Your task to perform on an android device: Empty the shopping cart on bestbuy. Search for "logitech g pro" on bestbuy, select the first entry, and add it to the cart. Image 0: 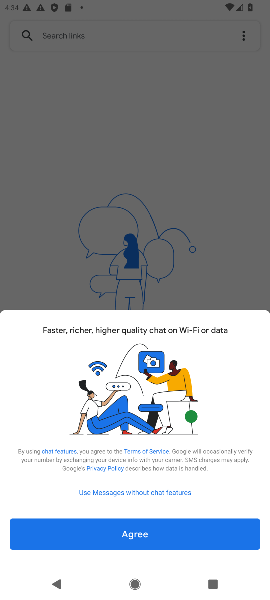
Step 0: press home button
Your task to perform on an android device: Empty the shopping cart on bestbuy. Search for "logitech g pro" on bestbuy, select the first entry, and add it to the cart. Image 1: 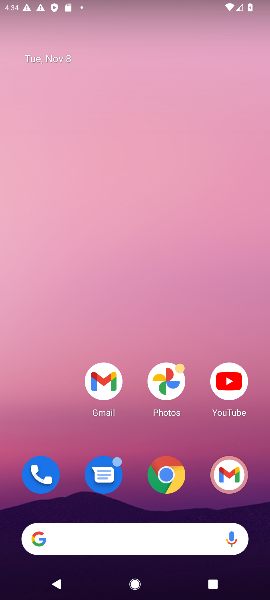
Step 1: drag from (148, 514) to (143, 174)
Your task to perform on an android device: Empty the shopping cart on bestbuy. Search for "logitech g pro" on bestbuy, select the first entry, and add it to the cart. Image 2: 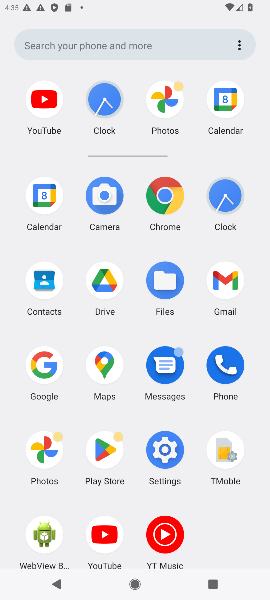
Step 2: click (37, 355)
Your task to perform on an android device: Empty the shopping cart on bestbuy. Search for "logitech g pro" on bestbuy, select the first entry, and add it to the cart. Image 3: 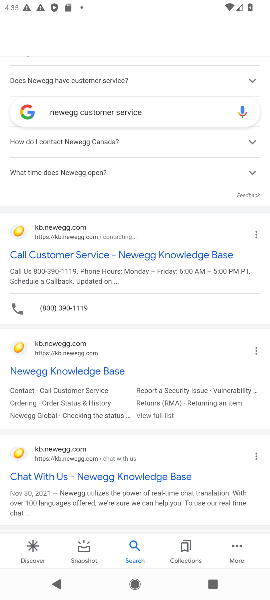
Step 3: click (129, 112)
Your task to perform on an android device: Empty the shopping cart on bestbuy. Search for "logitech g pro" on bestbuy, select the first entry, and add it to the cart. Image 4: 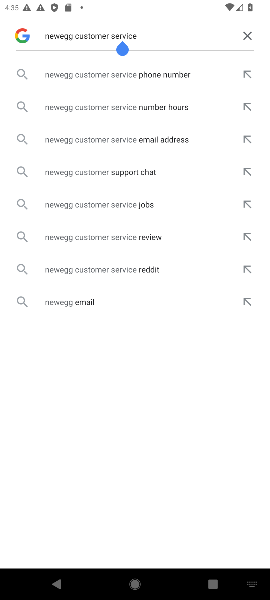
Step 4: click (251, 33)
Your task to perform on an android device: Empty the shopping cart on bestbuy. Search for "logitech g pro" on bestbuy, select the first entry, and add it to the cart. Image 5: 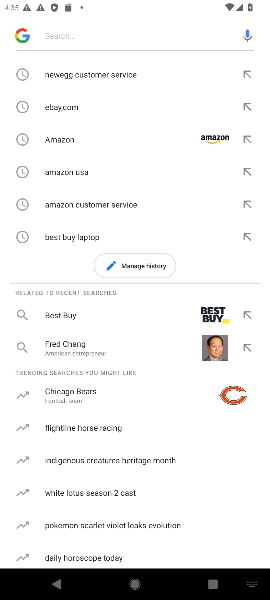
Step 5: click (60, 29)
Your task to perform on an android device: Empty the shopping cart on bestbuy. Search for "logitech g pro" on bestbuy, select the first entry, and add it to the cart. Image 6: 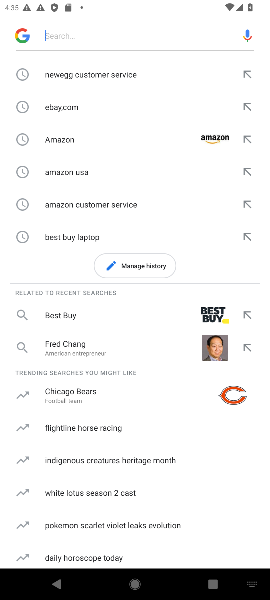
Step 6: type "bestbuy "
Your task to perform on an android device: Empty the shopping cart on bestbuy. Search for "logitech g pro" on bestbuy, select the first entry, and add it to the cart. Image 7: 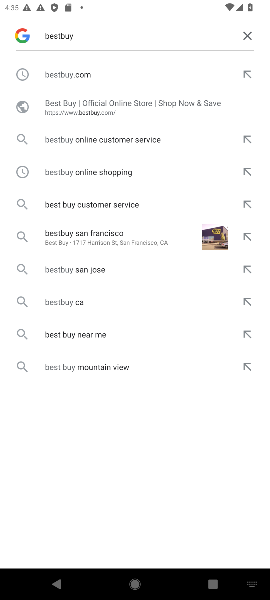
Step 7: click (97, 66)
Your task to perform on an android device: Empty the shopping cart on bestbuy. Search for "logitech g pro" on bestbuy, select the first entry, and add it to the cart. Image 8: 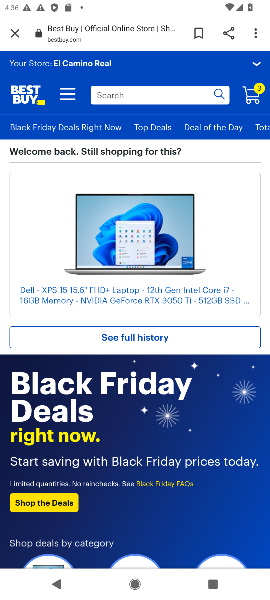
Step 8: click (125, 88)
Your task to perform on an android device: Empty the shopping cart on bestbuy. Search for "logitech g pro" on bestbuy, select the first entry, and add it to the cart. Image 9: 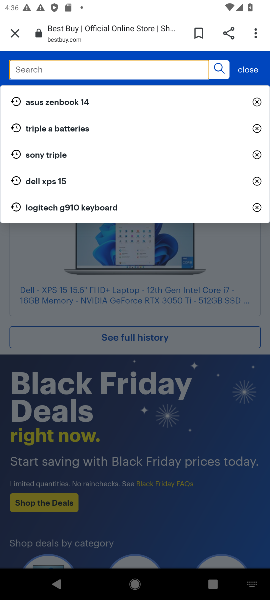
Step 9: type ""logitech g pro" "
Your task to perform on an android device: Empty the shopping cart on bestbuy. Search for "logitech g pro" on bestbuy, select the first entry, and add it to the cart. Image 10: 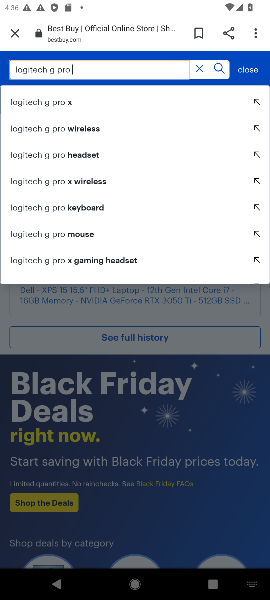
Step 10: click (61, 102)
Your task to perform on an android device: Empty the shopping cart on bestbuy. Search for "logitech g pro" on bestbuy, select the first entry, and add it to the cart. Image 11: 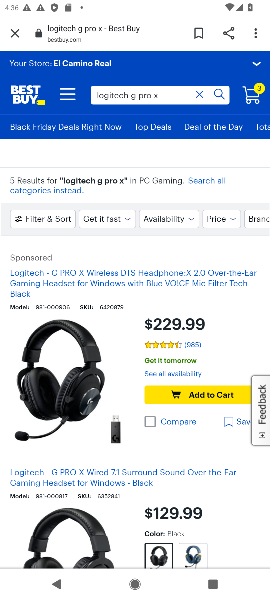
Step 11: click (187, 405)
Your task to perform on an android device: Empty the shopping cart on bestbuy. Search for "logitech g pro" on bestbuy, select the first entry, and add it to the cart. Image 12: 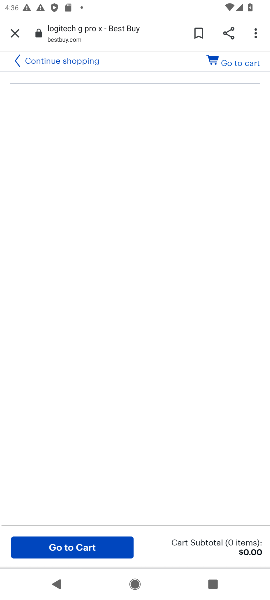
Step 12: task complete